Your task to perform on an android device: turn on the 12-hour format for clock Image 0: 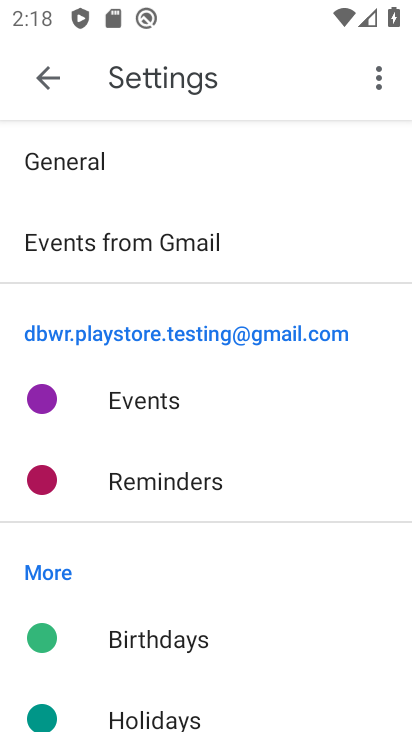
Step 0: press back button
Your task to perform on an android device: turn on the 12-hour format for clock Image 1: 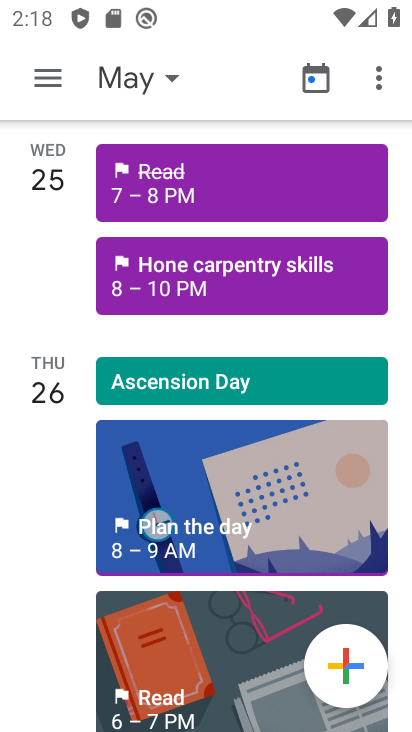
Step 1: press back button
Your task to perform on an android device: turn on the 12-hour format for clock Image 2: 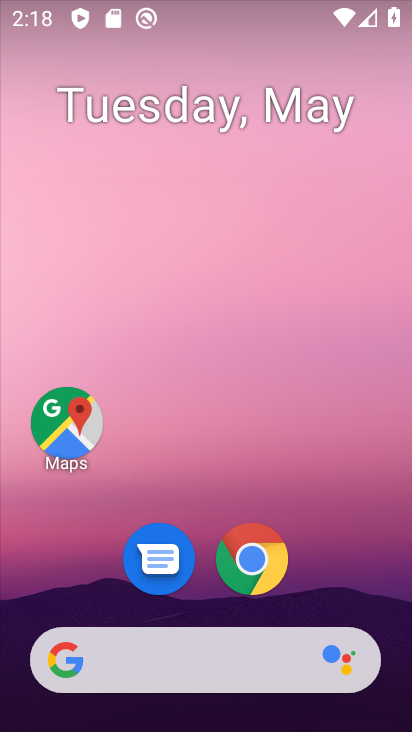
Step 2: drag from (341, 570) to (253, 64)
Your task to perform on an android device: turn on the 12-hour format for clock Image 3: 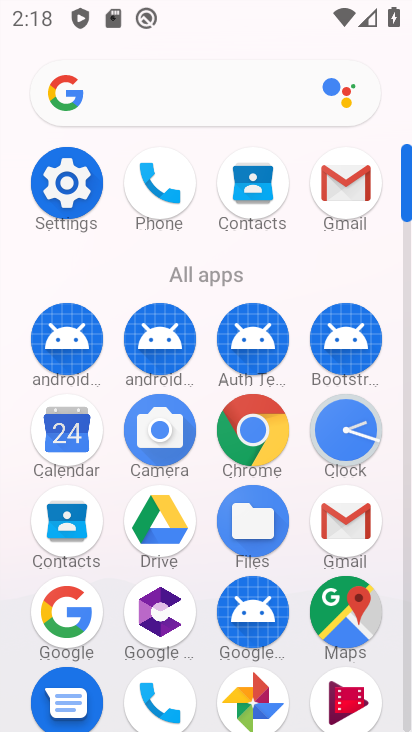
Step 3: click (346, 429)
Your task to perform on an android device: turn on the 12-hour format for clock Image 4: 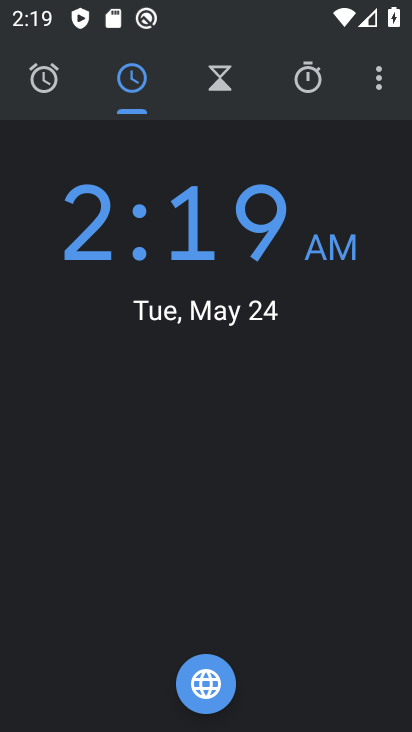
Step 4: click (380, 85)
Your task to perform on an android device: turn on the 12-hour format for clock Image 5: 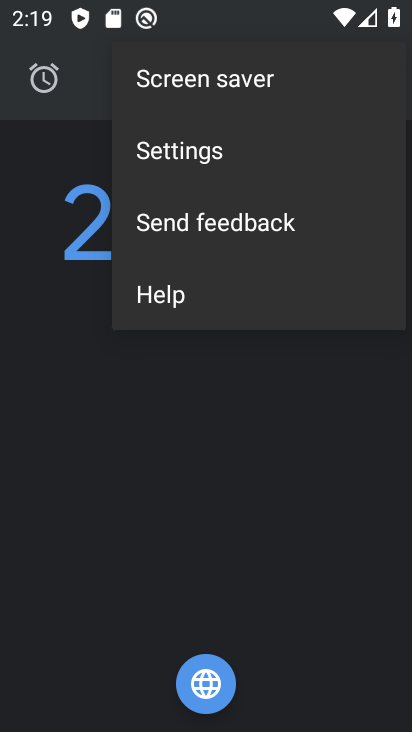
Step 5: click (185, 149)
Your task to perform on an android device: turn on the 12-hour format for clock Image 6: 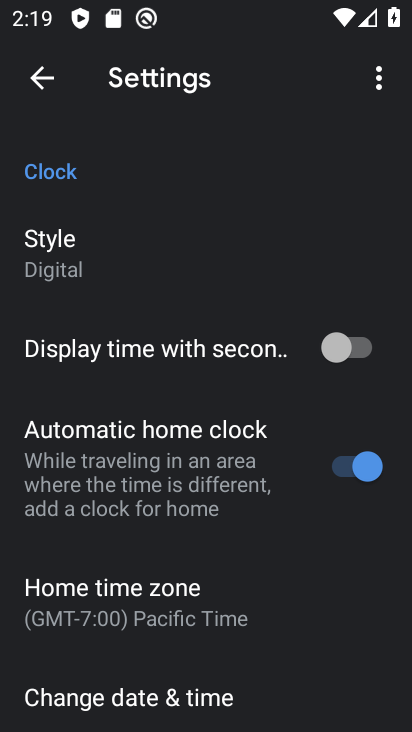
Step 6: drag from (305, 632) to (274, 295)
Your task to perform on an android device: turn on the 12-hour format for clock Image 7: 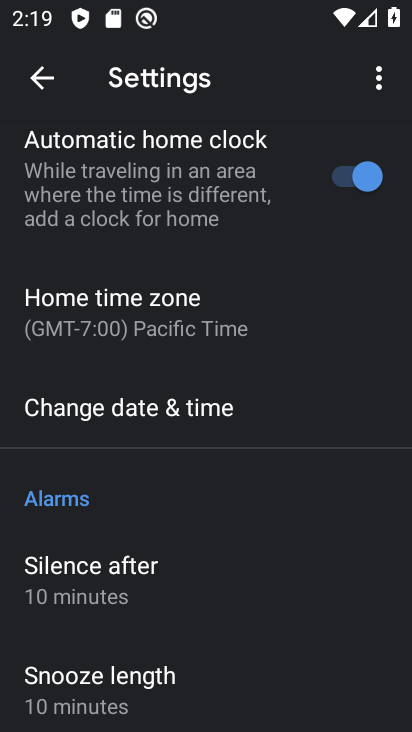
Step 7: click (172, 404)
Your task to perform on an android device: turn on the 12-hour format for clock Image 8: 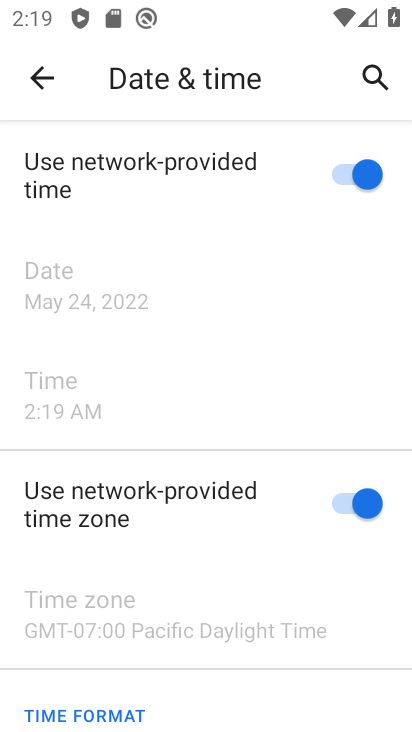
Step 8: task complete